Your task to perform on an android device: turn on notifications settings in the gmail app Image 0: 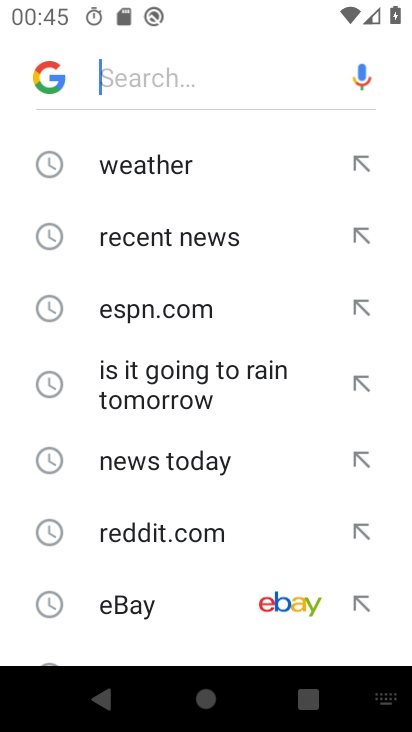
Step 0: press home button
Your task to perform on an android device: turn on notifications settings in the gmail app Image 1: 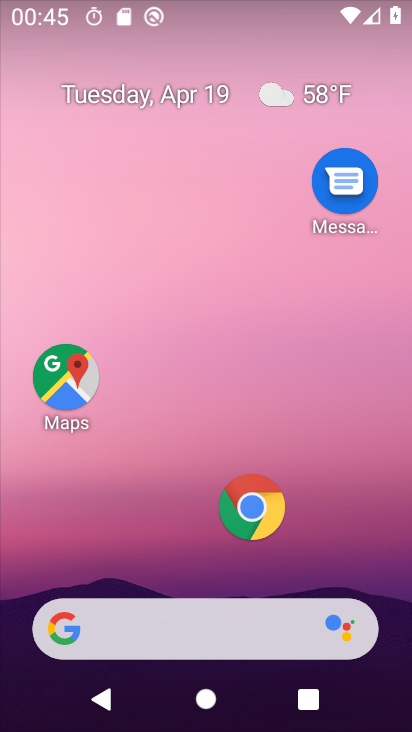
Step 1: drag from (147, 542) to (274, 7)
Your task to perform on an android device: turn on notifications settings in the gmail app Image 2: 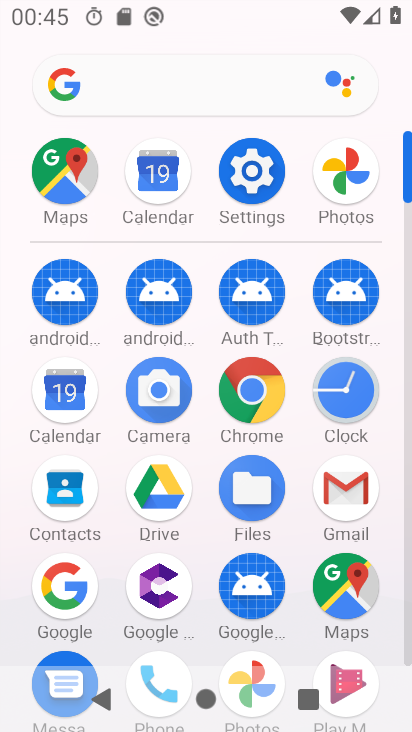
Step 2: click (349, 492)
Your task to perform on an android device: turn on notifications settings in the gmail app Image 3: 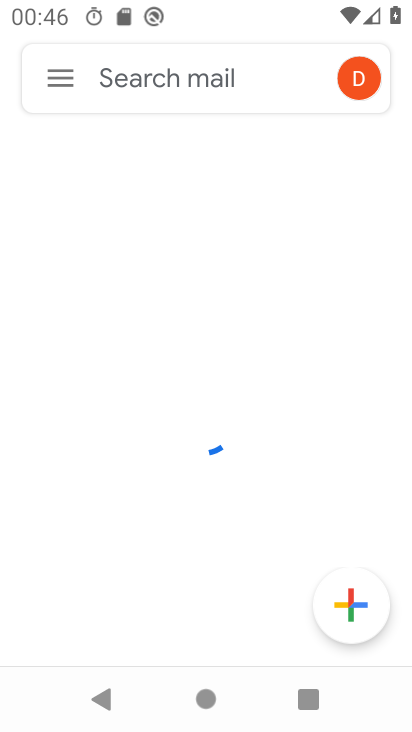
Step 3: click (59, 84)
Your task to perform on an android device: turn on notifications settings in the gmail app Image 4: 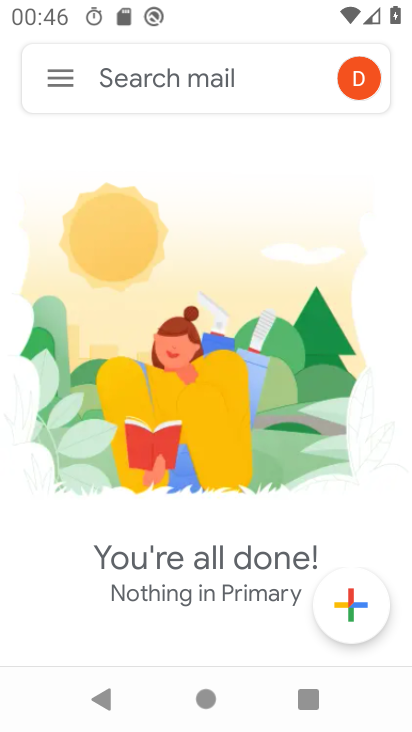
Step 4: click (54, 76)
Your task to perform on an android device: turn on notifications settings in the gmail app Image 5: 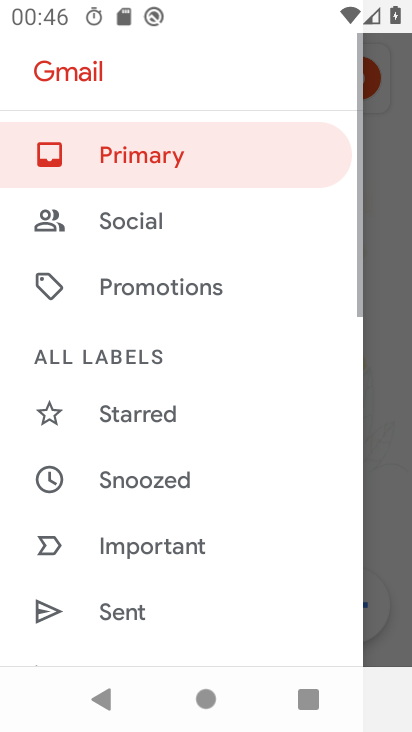
Step 5: drag from (114, 516) to (257, 10)
Your task to perform on an android device: turn on notifications settings in the gmail app Image 6: 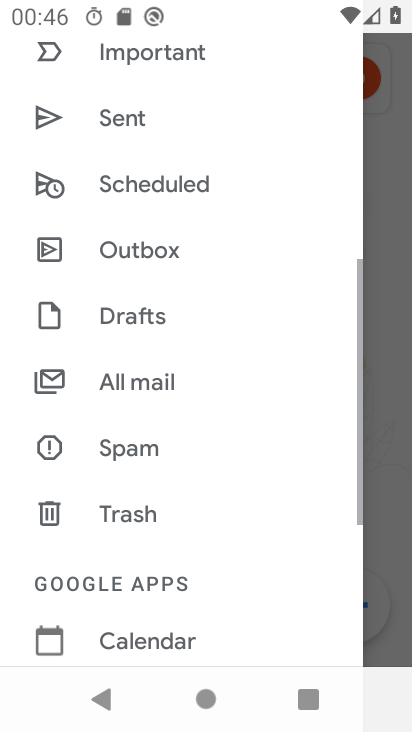
Step 6: drag from (167, 474) to (329, 22)
Your task to perform on an android device: turn on notifications settings in the gmail app Image 7: 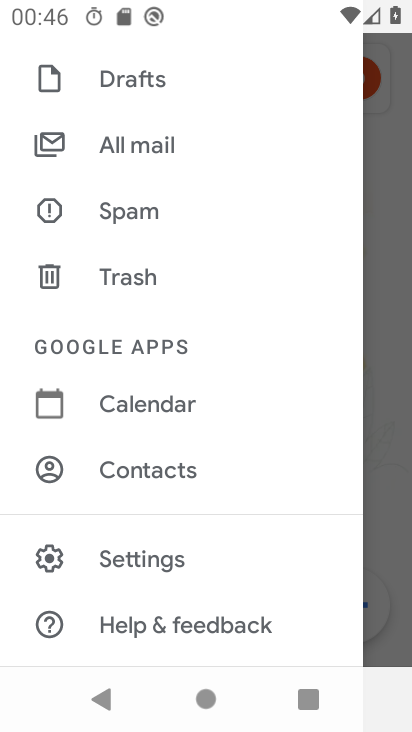
Step 7: click (148, 560)
Your task to perform on an android device: turn on notifications settings in the gmail app Image 8: 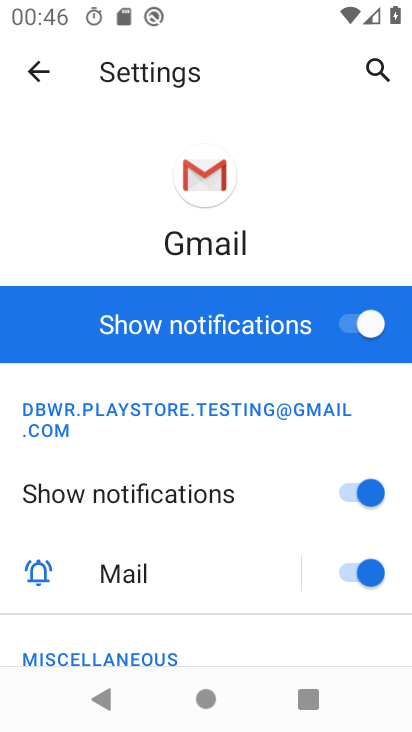
Step 8: task complete